Your task to perform on an android device: What's the weather? Image 0: 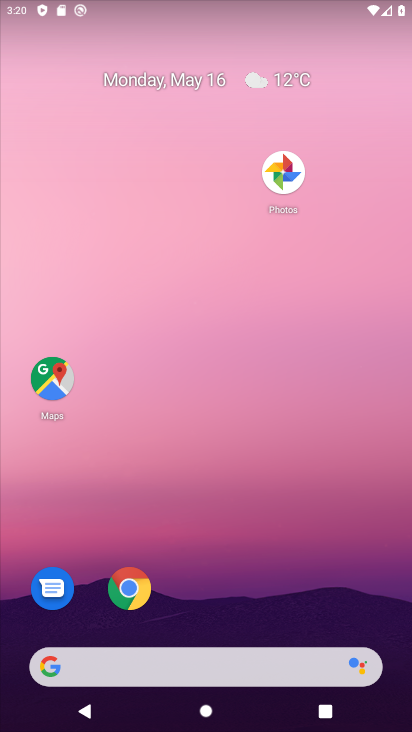
Step 0: click (288, 80)
Your task to perform on an android device: What's the weather? Image 1: 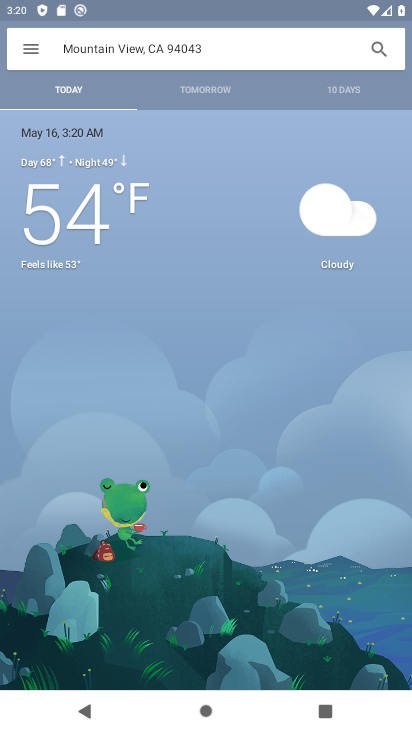
Step 1: task complete